Your task to perform on an android device: Open calendar and show me the fourth week of next month Image 0: 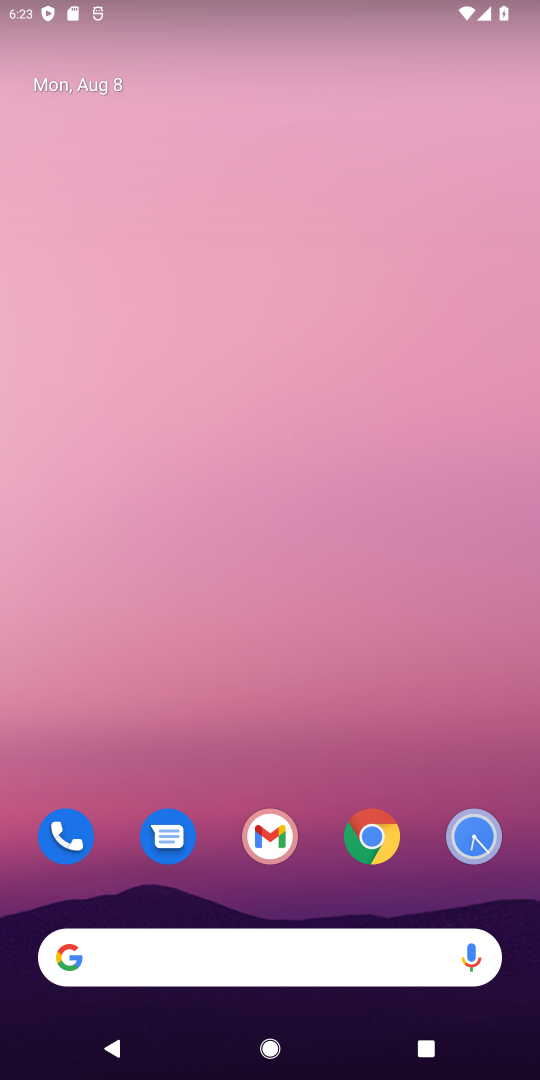
Step 0: drag from (270, 708) to (346, 78)
Your task to perform on an android device: Open calendar and show me the fourth week of next month Image 1: 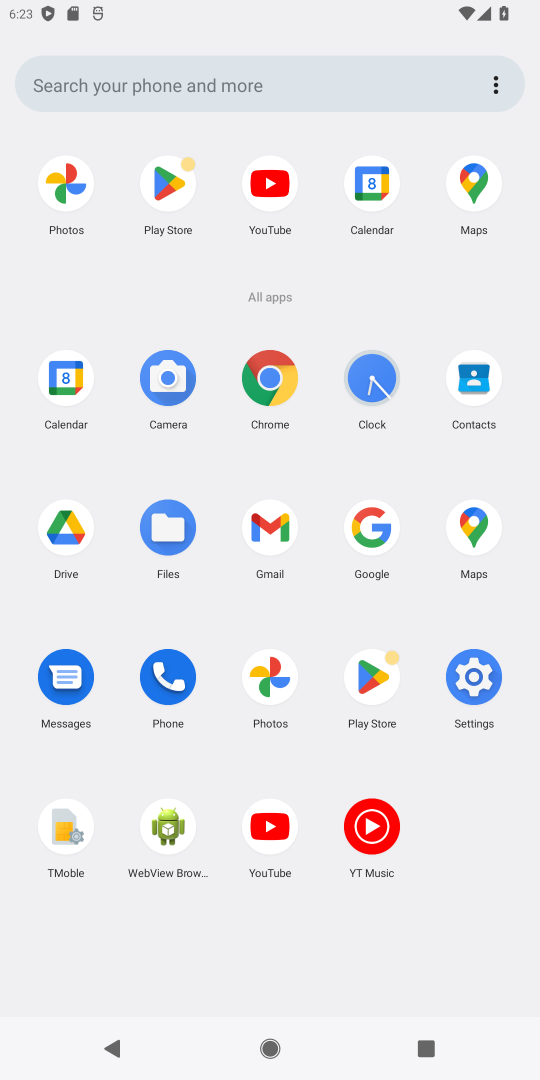
Step 1: click (77, 397)
Your task to perform on an android device: Open calendar and show me the fourth week of next month Image 2: 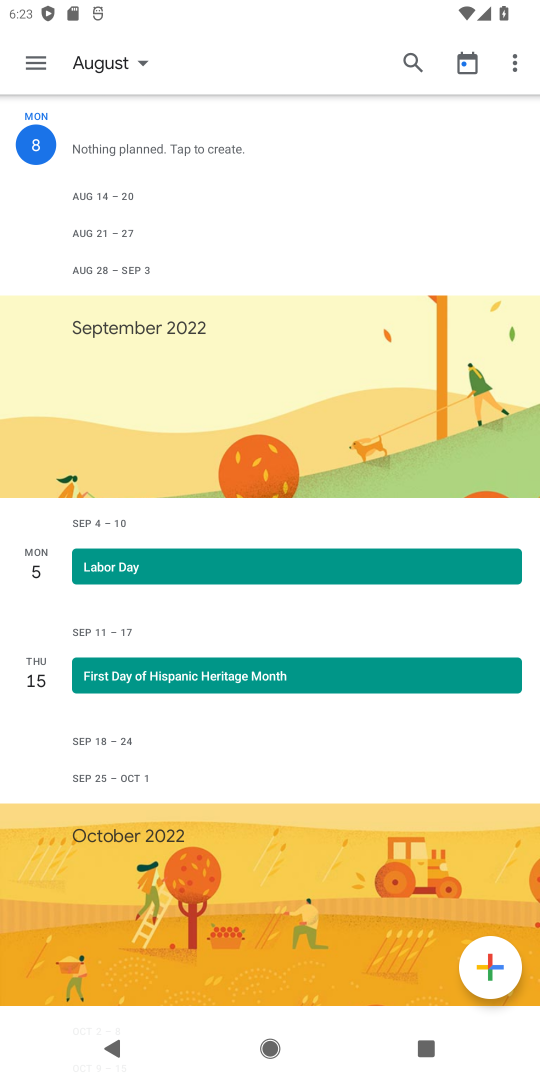
Step 2: click (47, 67)
Your task to perform on an android device: Open calendar and show me the fourth week of next month Image 3: 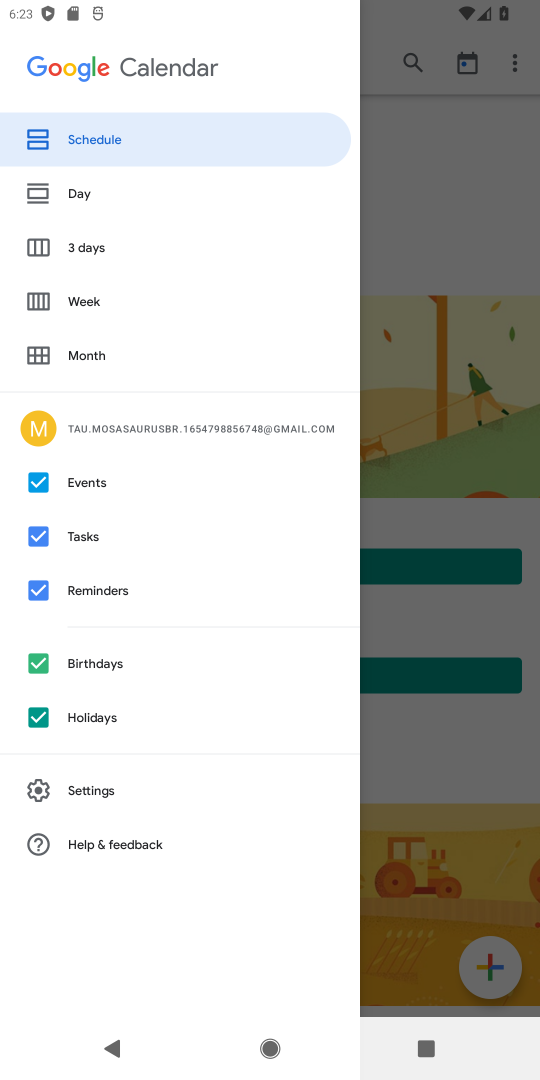
Step 3: click (103, 294)
Your task to perform on an android device: Open calendar and show me the fourth week of next month Image 4: 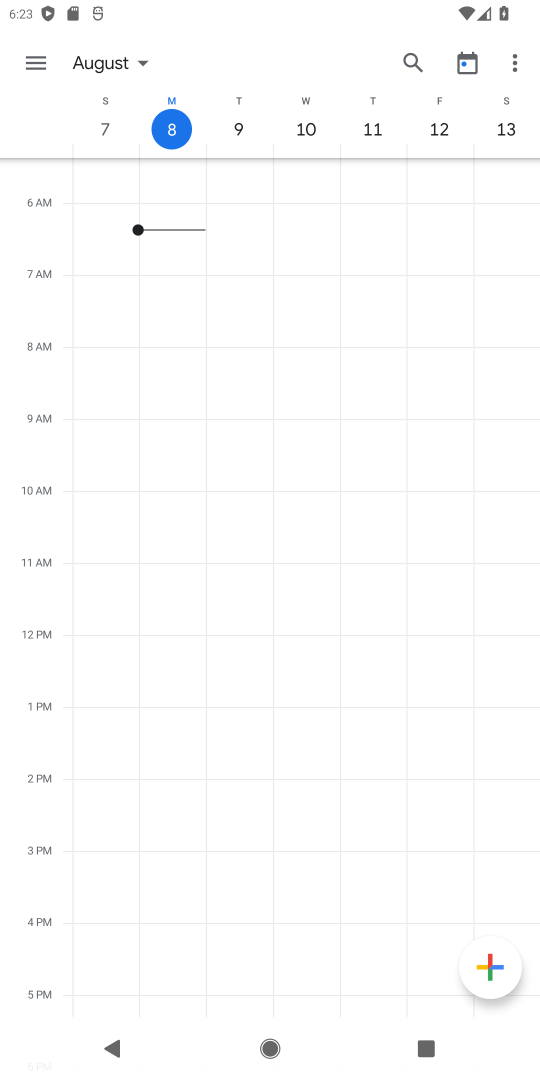
Step 4: click (127, 65)
Your task to perform on an android device: Open calendar and show me the fourth week of next month Image 5: 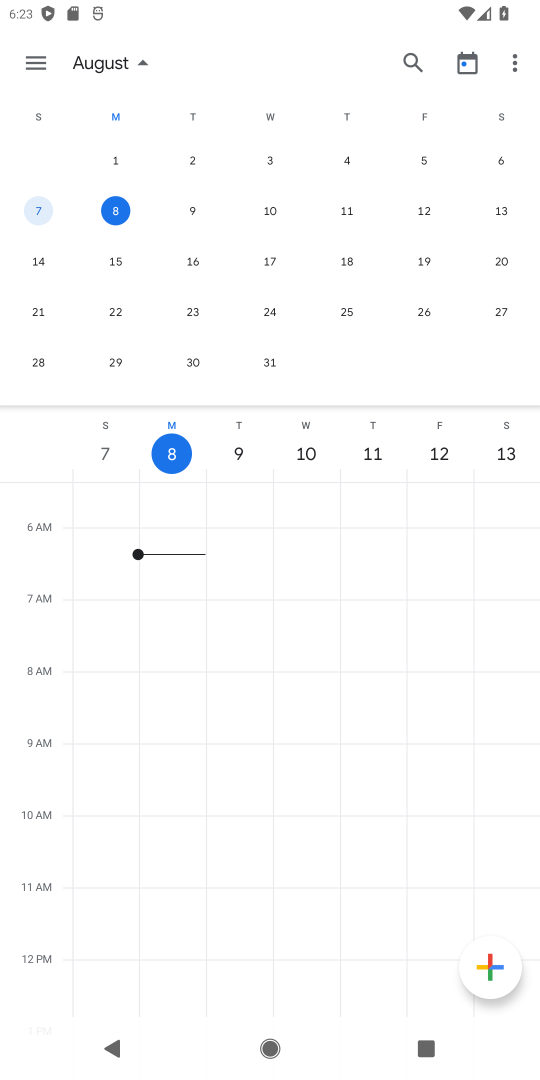
Step 5: drag from (388, 246) to (0, 295)
Your task to perform on an android device: Open calendar and show me the fourth week of next month Image 6: 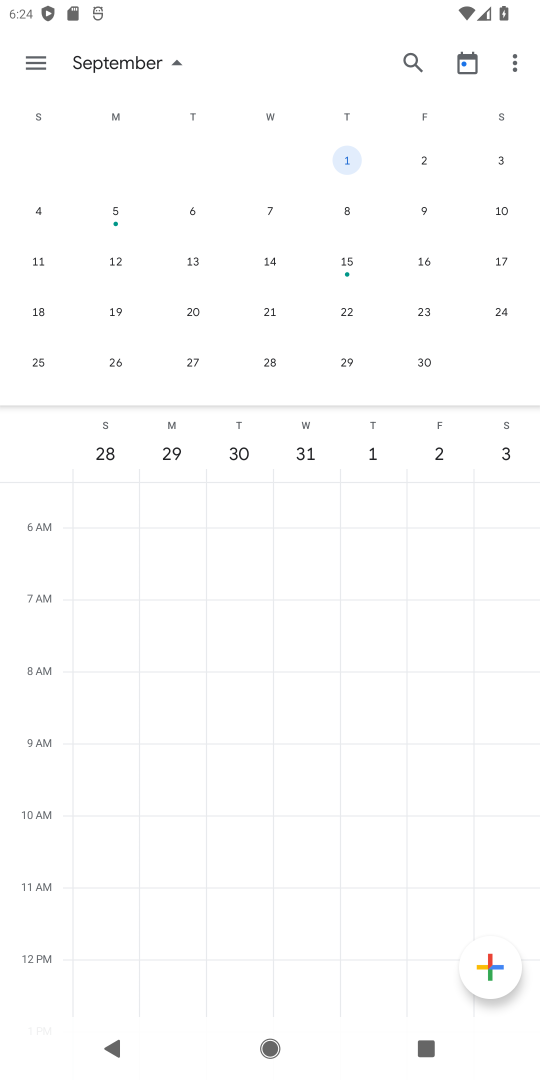
Step 6: click (34, 311)
Your task to perform on an android device: Open calendar and show me the fourth week of next month Image 7: 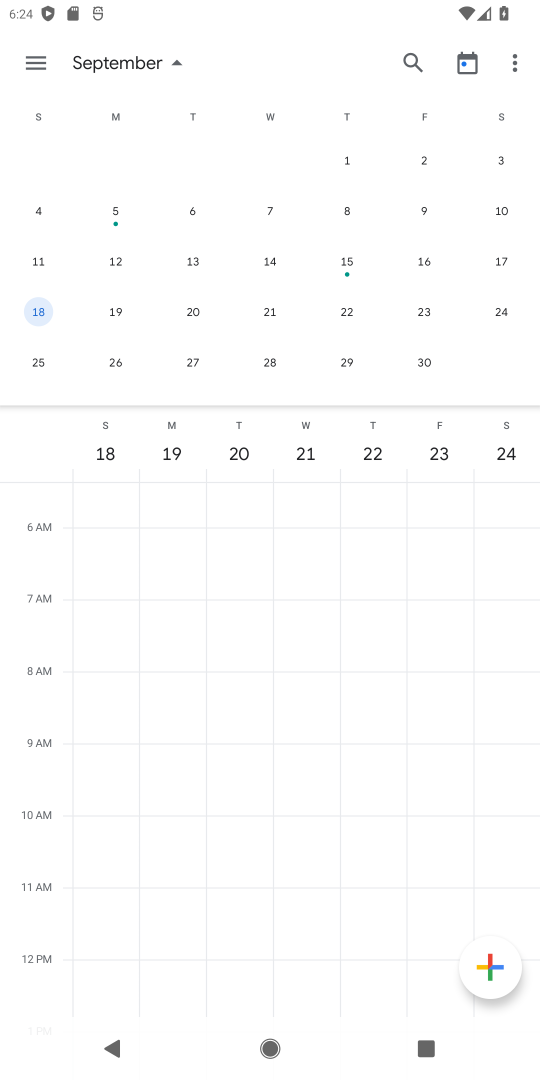
Step 7: click (167, 55)
Your task to perform on an android device: Open calendar and show me the fourth week of next month Image 8: 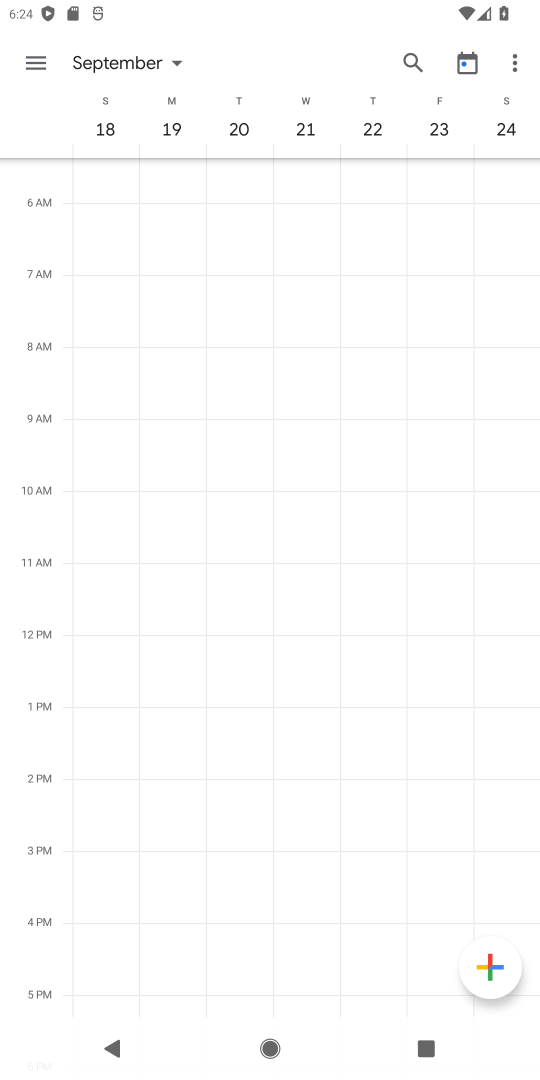
Step 8: task complete